Your task to perform on an android device: toggle translation in the chrome app Image 0: 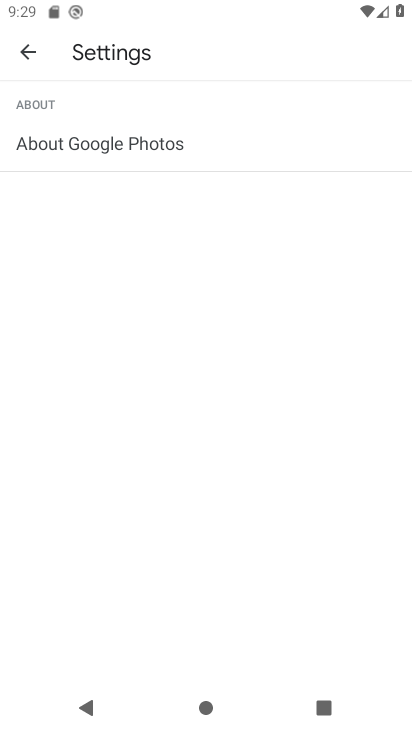
Step 0: press home button
Your task to perform on an android device: toggle translation in the chrome app Image 1: 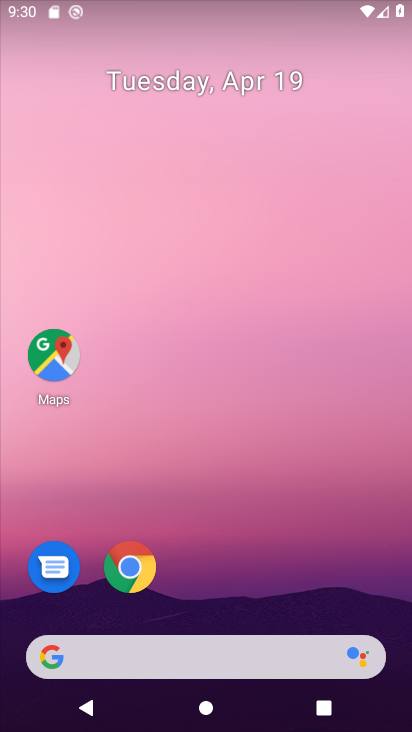
Step 1: drag from (214, 561) to (274, 45)
Your task to perform on an android device: toggle translation in the chrome app Image 2: 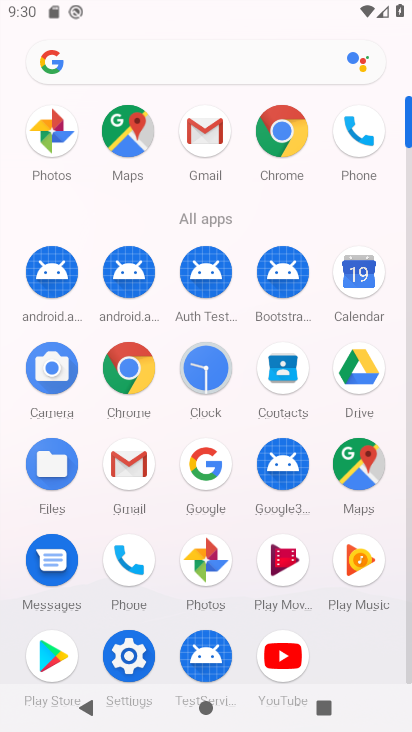
Step 2: click (290, 132)
Your task to perform on an android device: toggle translation in the chrome app Image 3: 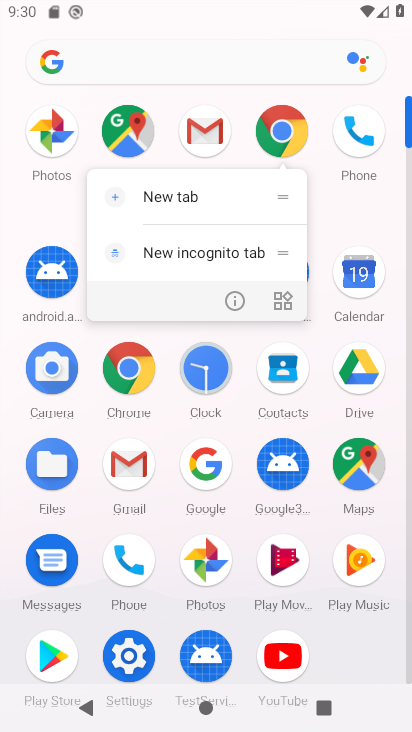
Step 3: click (291, 132)
Your task to perform on an android device: toggle translation in the chrome app Image 4: 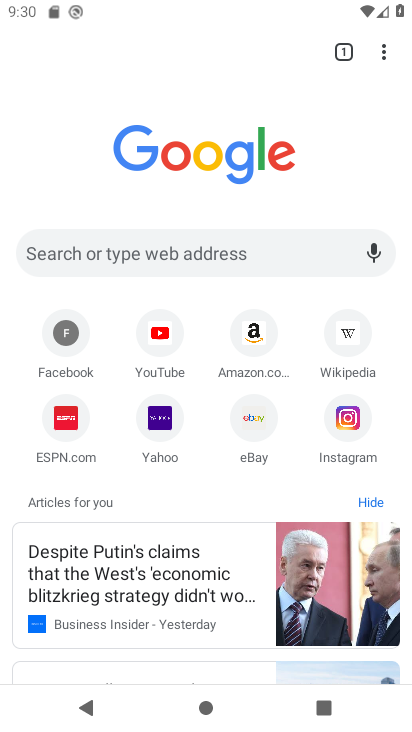
Step 4: click (385, 49)
Your task to perform on an android device: toggle translation in the chrome app Image 5: 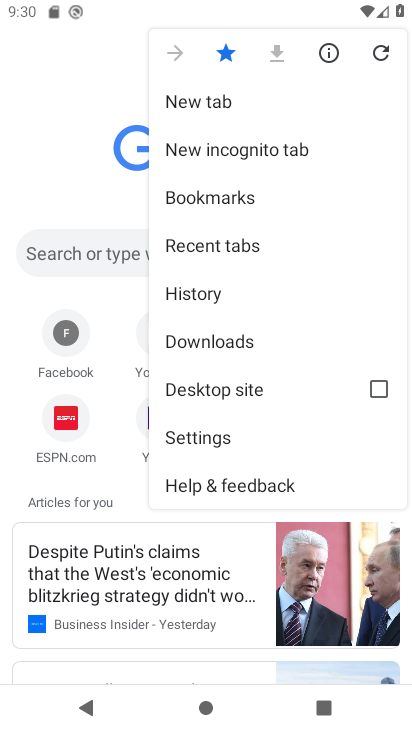
Step 5: click (222, 435)
Your task to perform on an android device: toggle translation in the chrome app Image 6: 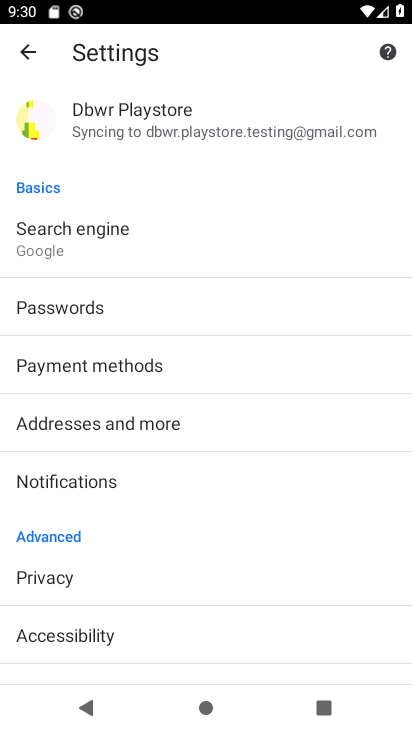
Step 6: drag from (110, 578) to (168, 389)
Your task to perform on an android device: toggle translation in the chrome app Image 7: 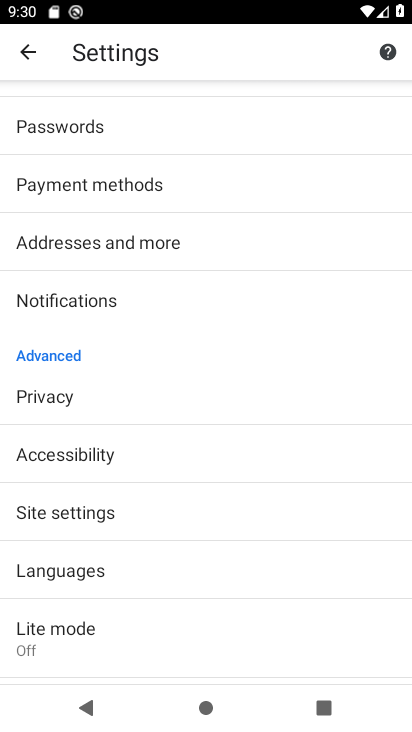
Step 7: click (149, 555)
Your task to perform on an android device: toggle translation in the chrome app Image 8: 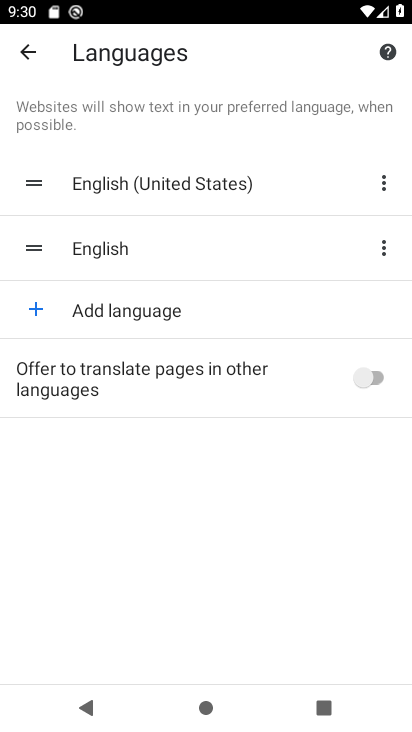
Step 8: click (358, 373)
Your task to perform on an android device: toggle translation in the chrome app Image 9: 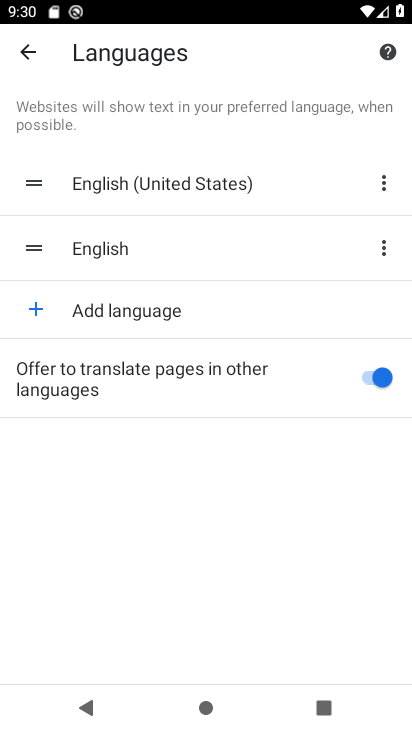
Step 9: task complete